Your task to perform on an android device: toggle wifi Image 0: 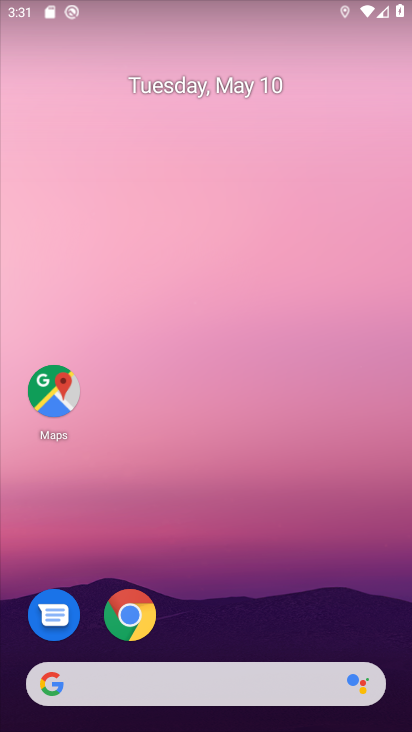
Step 0: drag from (263, 12) to (213, 409)
Your task to perform on an android device: toggle wifi Image 1: 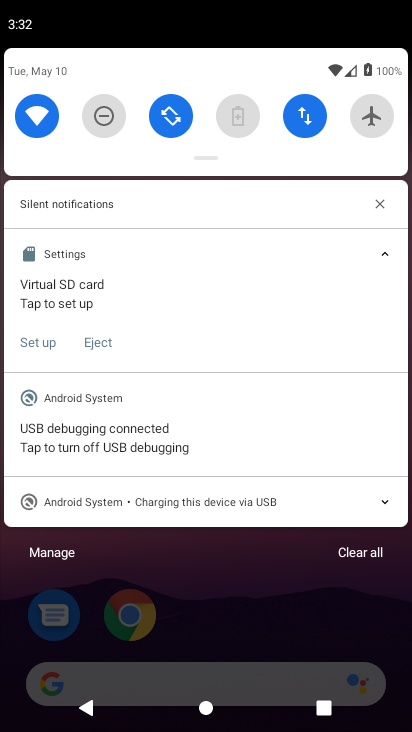
Step 1: click (37, 118)
Your task to perform on an android device: toggle wifi Image 2: 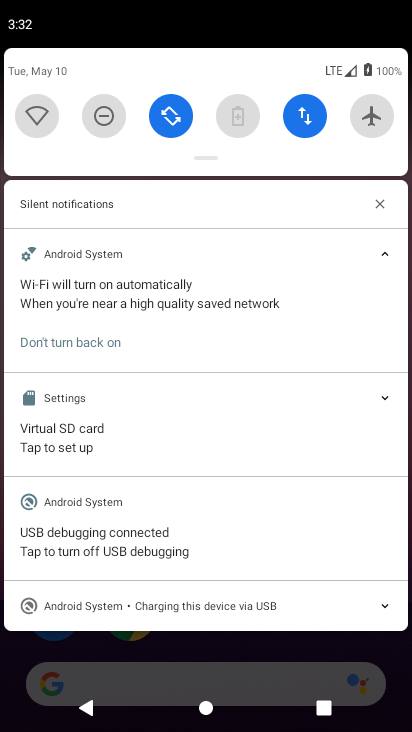
Step 2: task complete